Your task to perform on an android device: choose inbox layout in the gmail app Image 0: 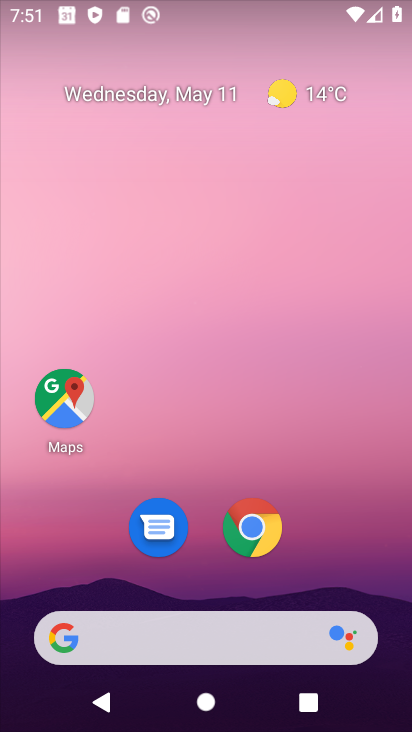
Step 0: drag from (201, 530) to (229, 181)
Your task to perform on an android device: choose inbox layout in the gmail app Image 1: 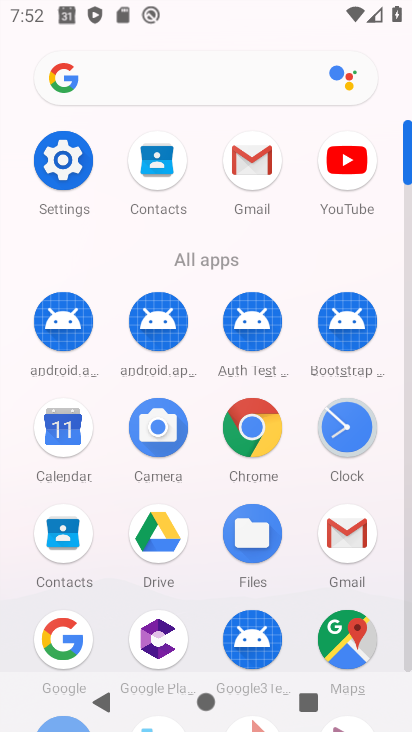
Step 1: click (329, 532)
Your task to perform on an android device: choose inbox layout in the gmail app Image 2: 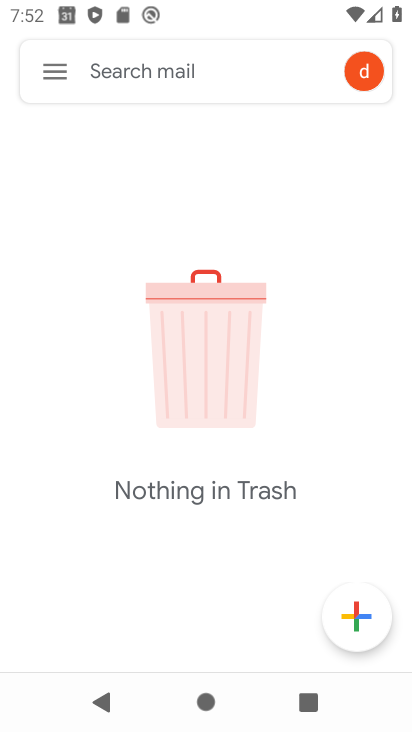
Step 2: click (42, 69)
Your task to perform on an android device: choose inbox layout in the gmail app Image 3: 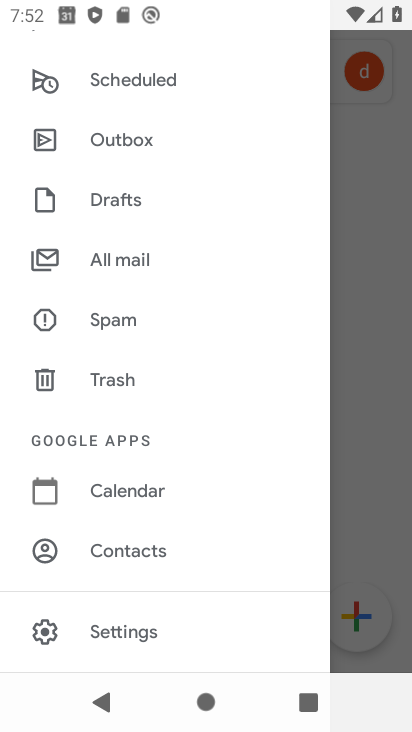
Step 3: click (145, 652)
Your task to perform on an android device: choose inbox layout in the gmail app Image 4: 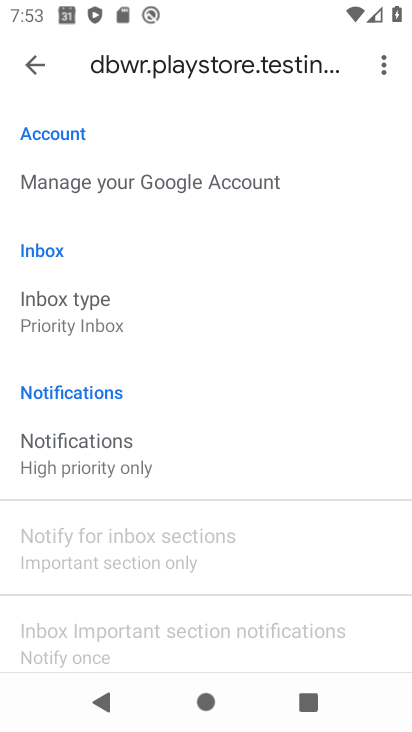
Step 4: click (181, 311)
Your task to perform on an android device: choose inbox layout in the gmail app Image 5: 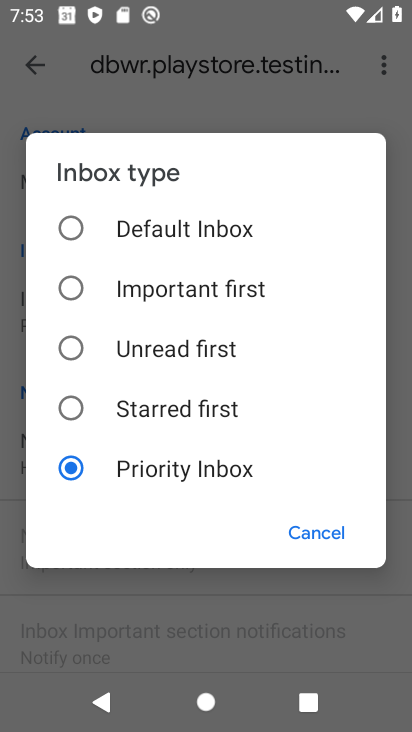
Step 5: click (189, 337)
Your task to perform on an android device: choose inbox layout in the gmail app Image 6: 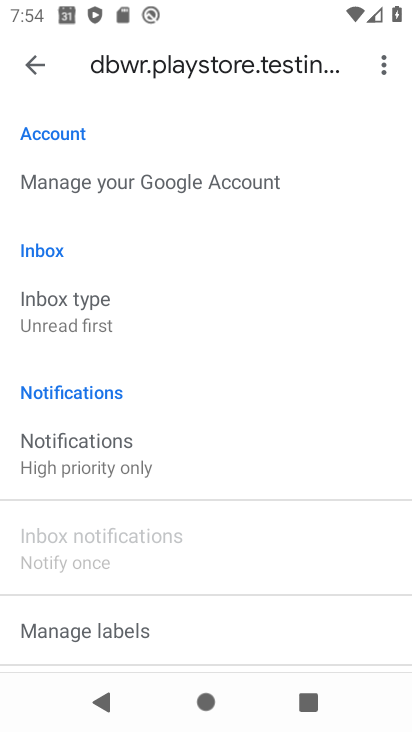
Step 6: task complete